Your task to perform on an android device: Turn off the flashlight Image 0: 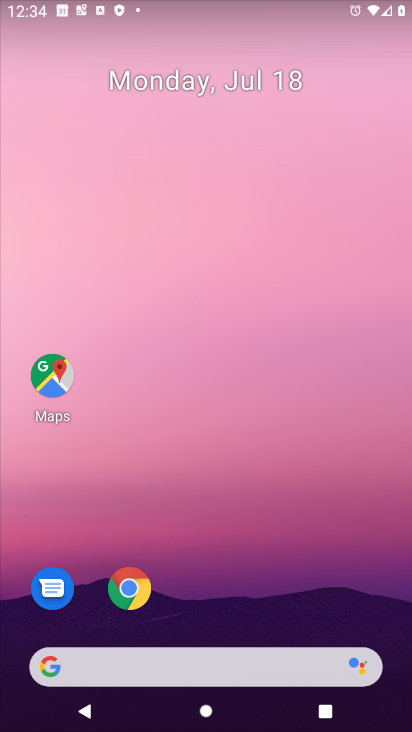
Step 0: drag from (221, 547) to (245, 244)
Your task to perform on an android device: Turn off the flashlight Image 1: 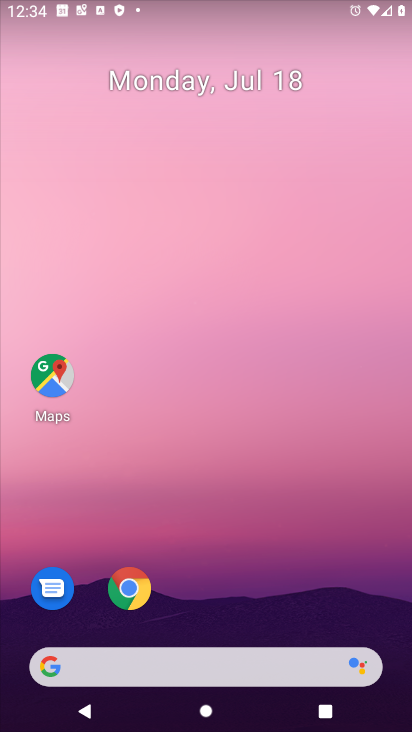
Step 1: task complete